Your task to perform on an android device: turn off data saver in the chrome app Image 0: 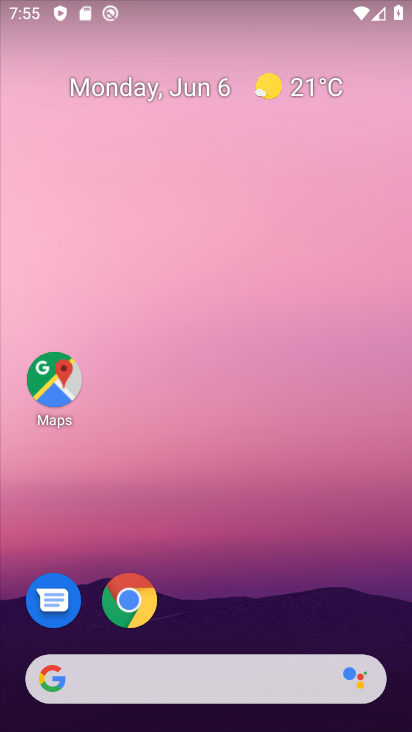
Step 0: click (124, 589)
Your task to perform on an android device: turn off data saver in the chrome app Image 1: 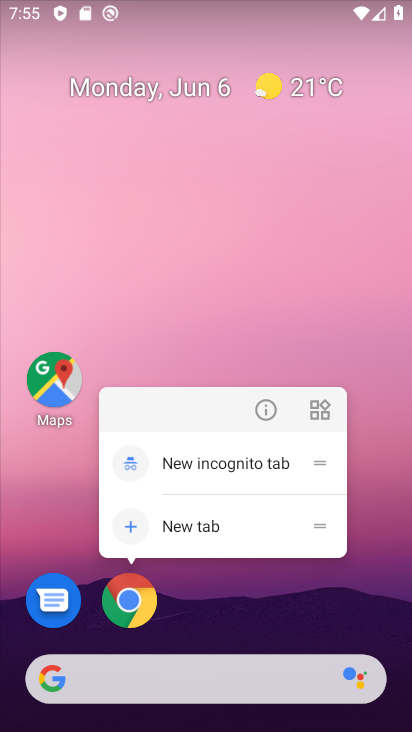
Step 1: click (137, 606)
Your task to perform on an android device: turn off data saver in the chrome app Image 2: 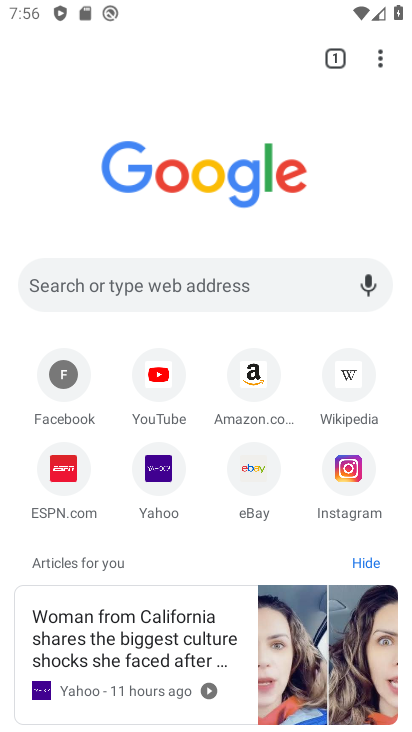
Step 2: click (378, 59)
Your task to perform on an android device: turn off data saver in the chrome app Image 3: 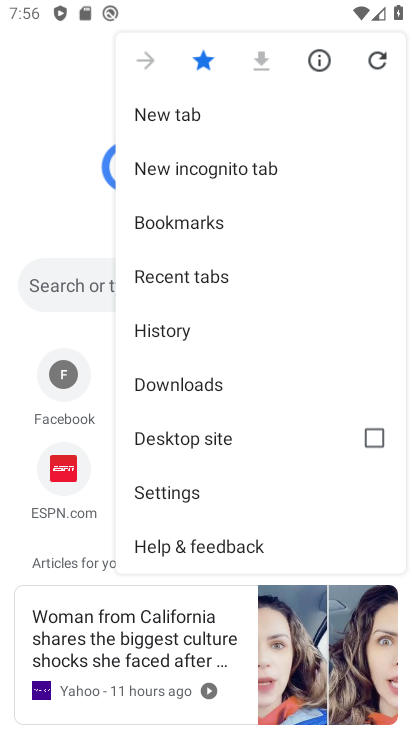
Step 3: click (161, 498)
Your task to perform on an android device: turn off data saver in the chrome app Image 4: 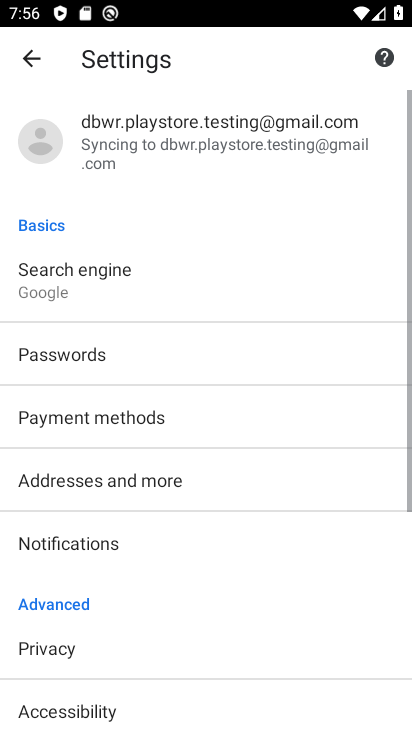
Step 4: drag from (154, 620) to (287, 127)
Your task to perform on an android device: turn off data saver in the chrome app Image 5: 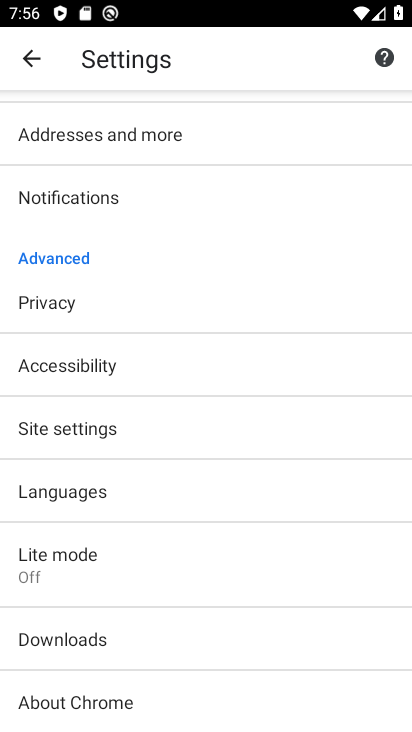
Step 5: click (97, 570)
Your task to perform on an android device: turn off data saver in the chrome app Image 6: 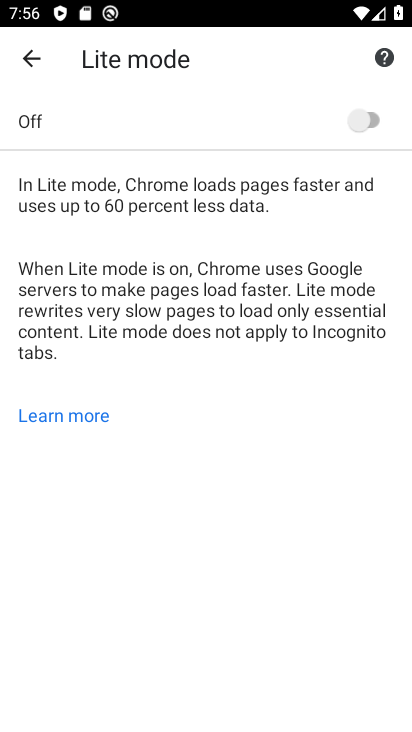
Step 6: task complete